Your task to perform on an android device: change keyboard looks Image 0: 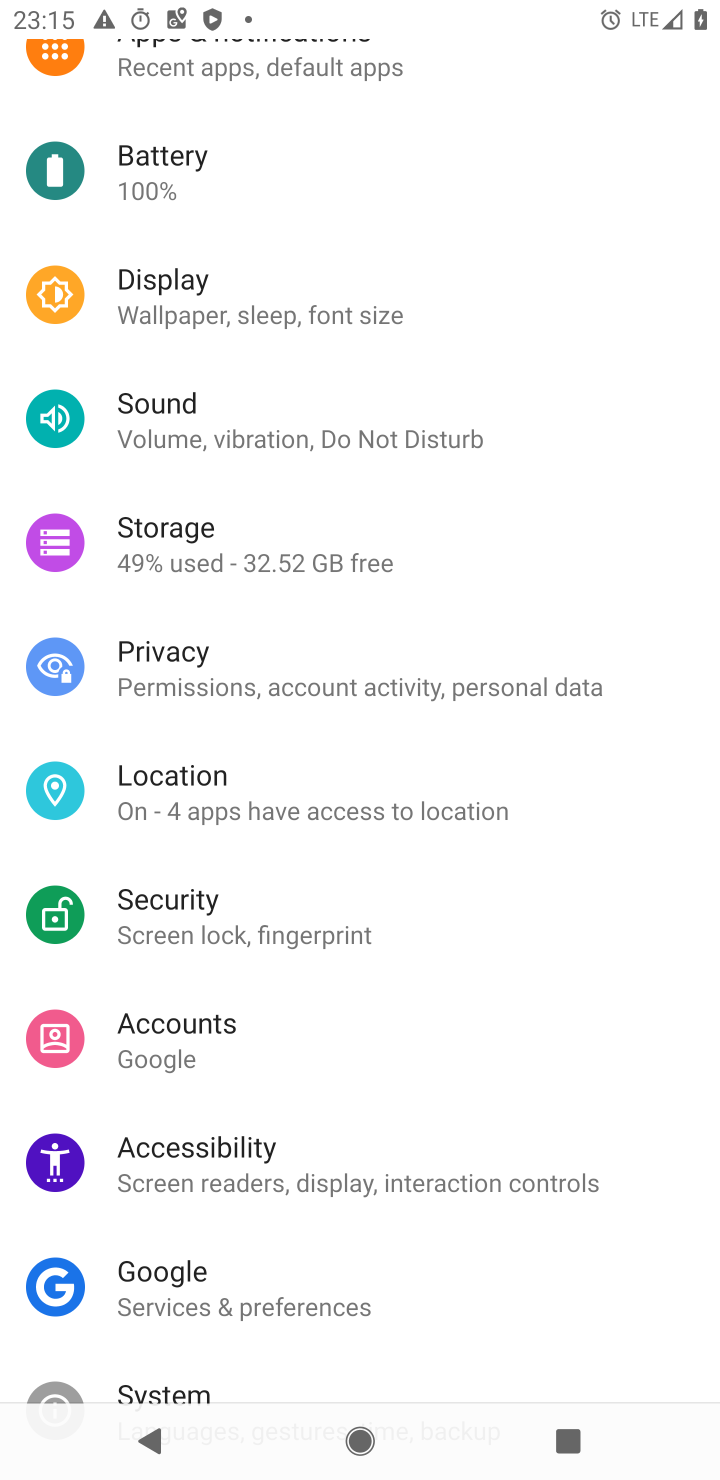
Step 0: click (192, 1374)
Your task to perform on an android device: change keyboard looks Image 1: 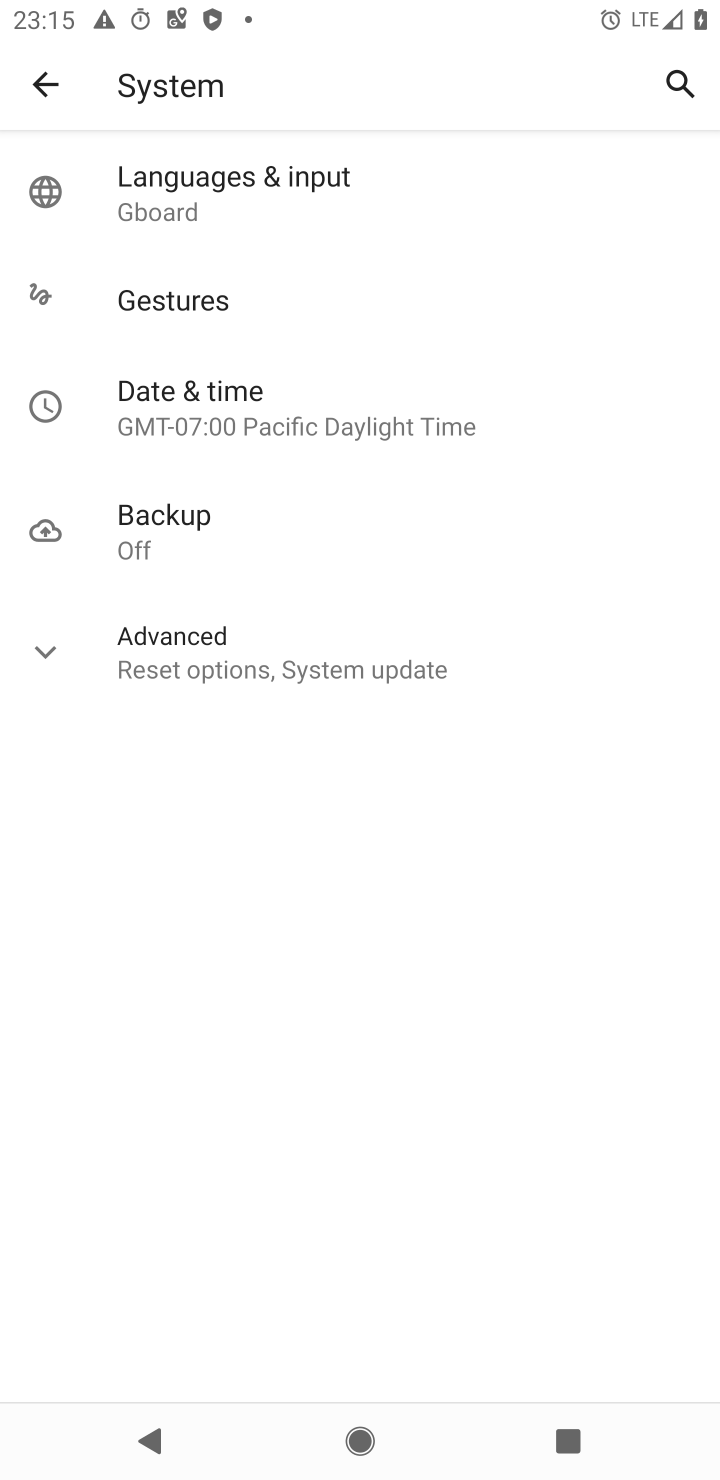
Step 1: click (344, 182)
Your task to perform on an android device: change keyboard looks Image 2: 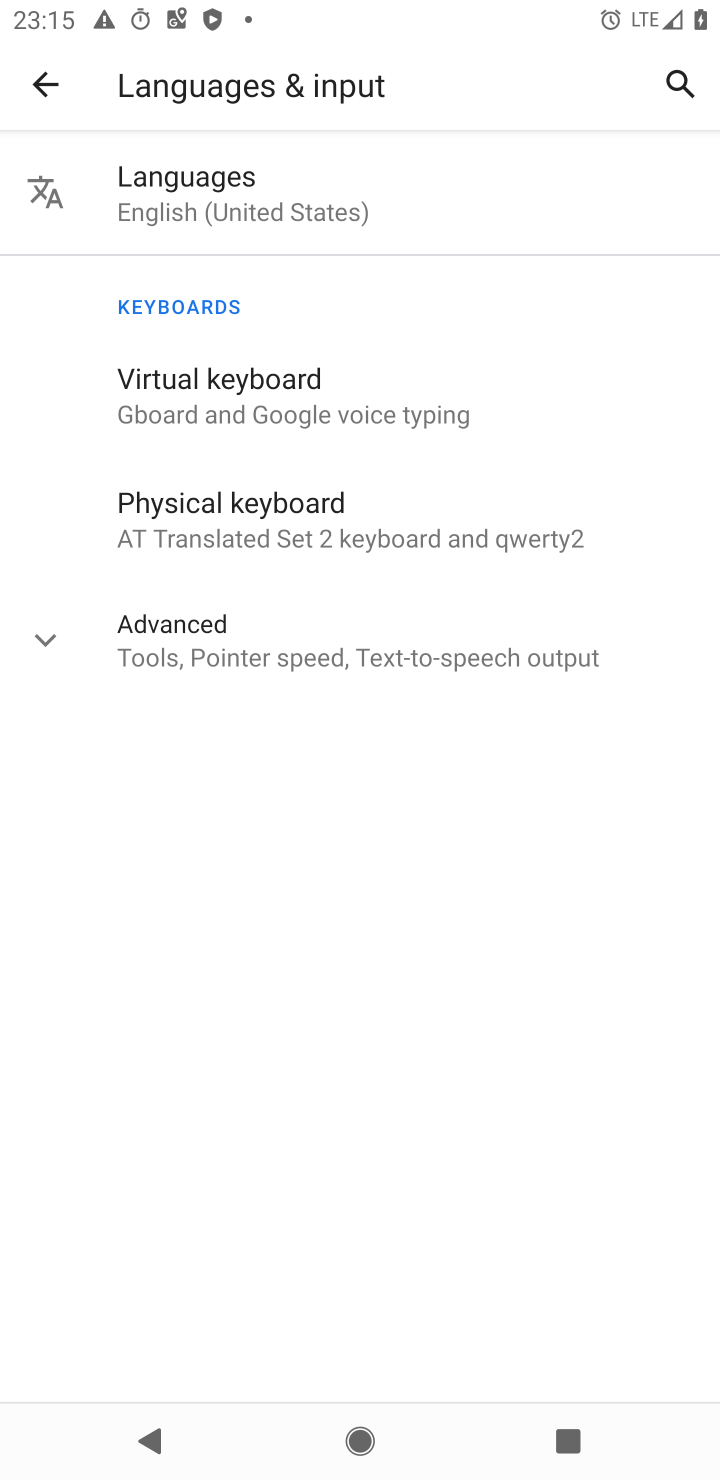
Step 2: click (339, 383)
Your task to perform on an android device: change keyboard looks Image 3: 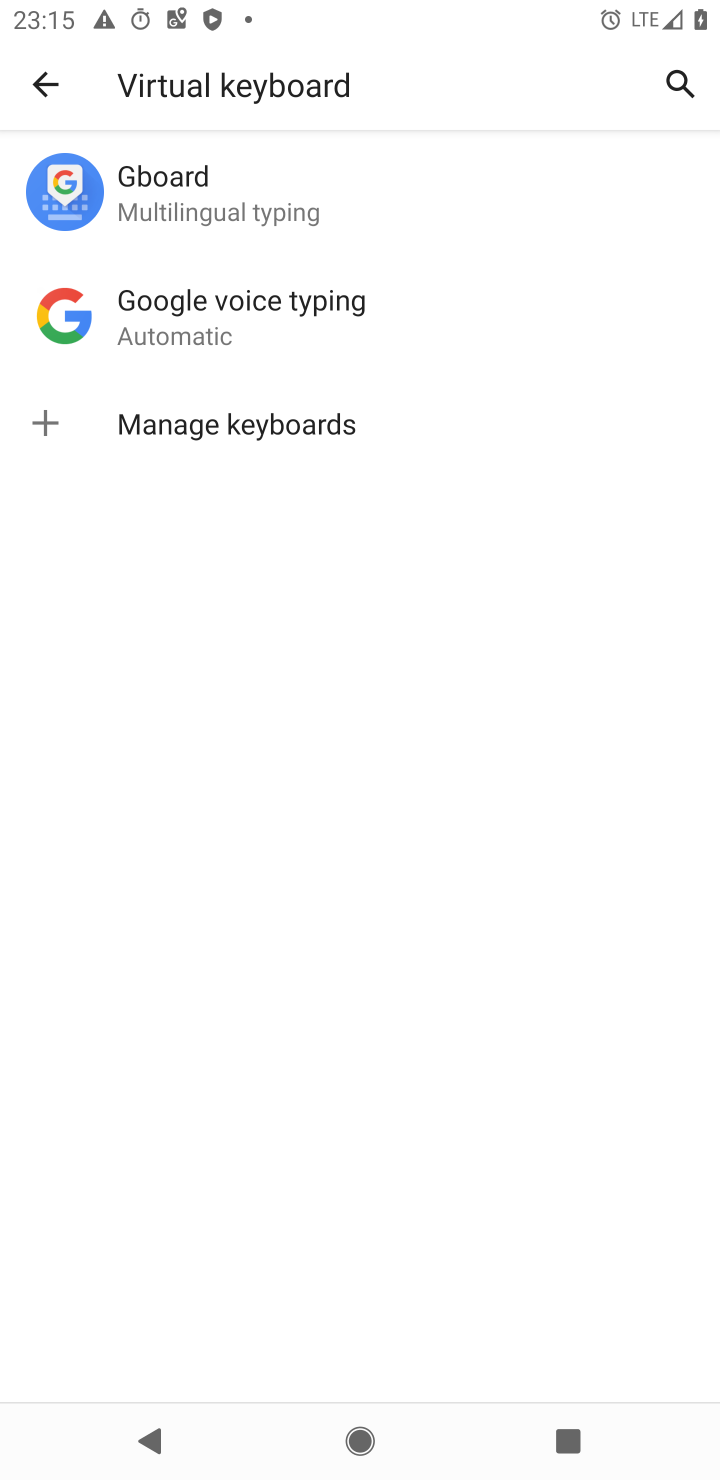
Step 3: click (178, 188)
Your task to perform on an android device: change keyboard looks Image 4: 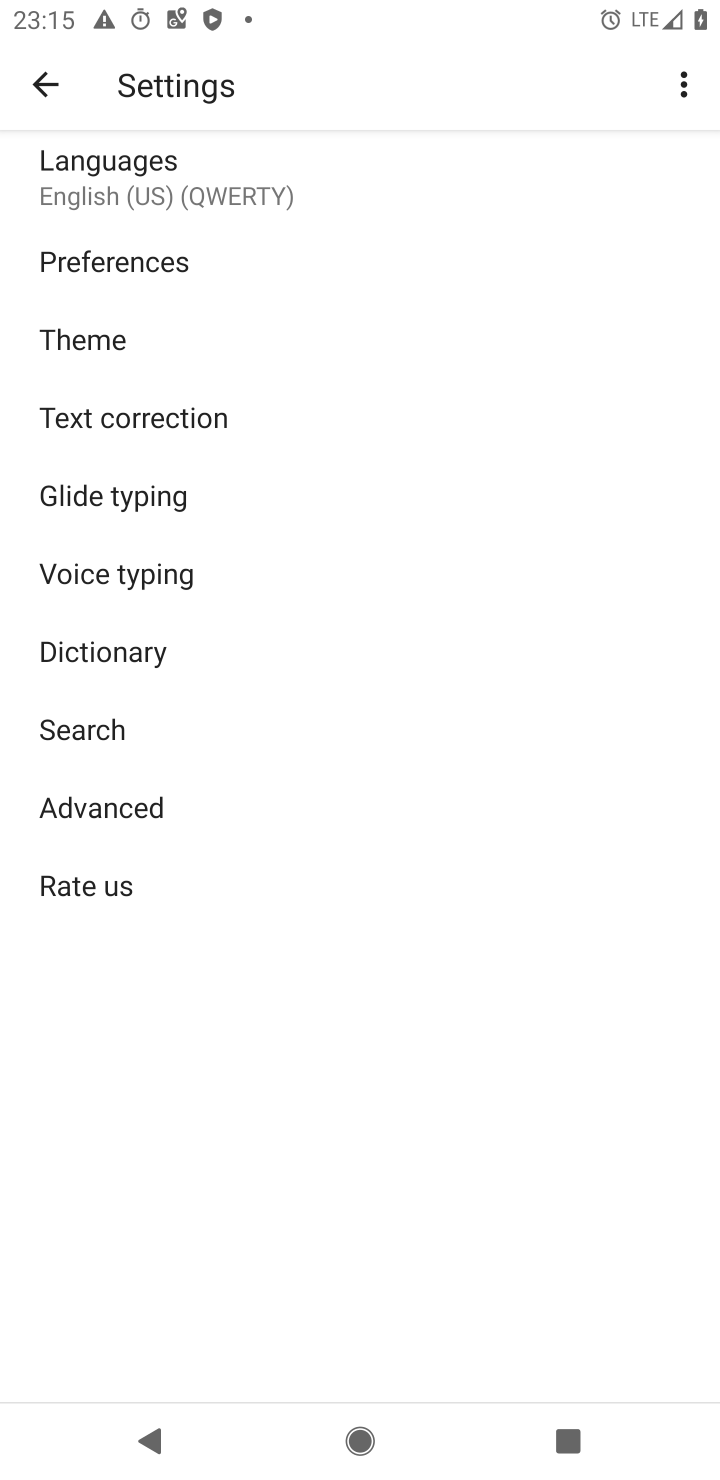
Step 4: click (132, 332)
Your task to perform on an android device: change keyboard looks Image 5: 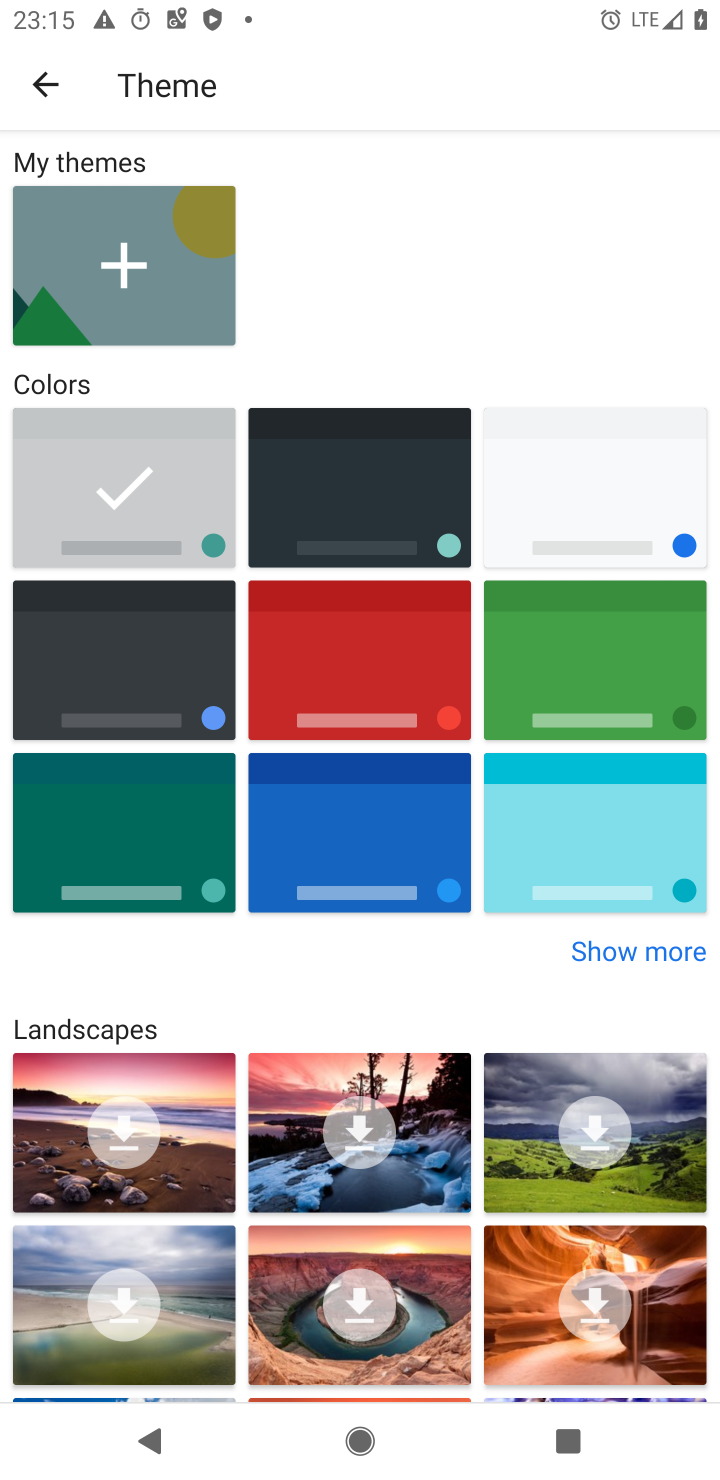
Step 5: click (409, 621)
Your task to perform on an android device: change keyboard looks Image 6: 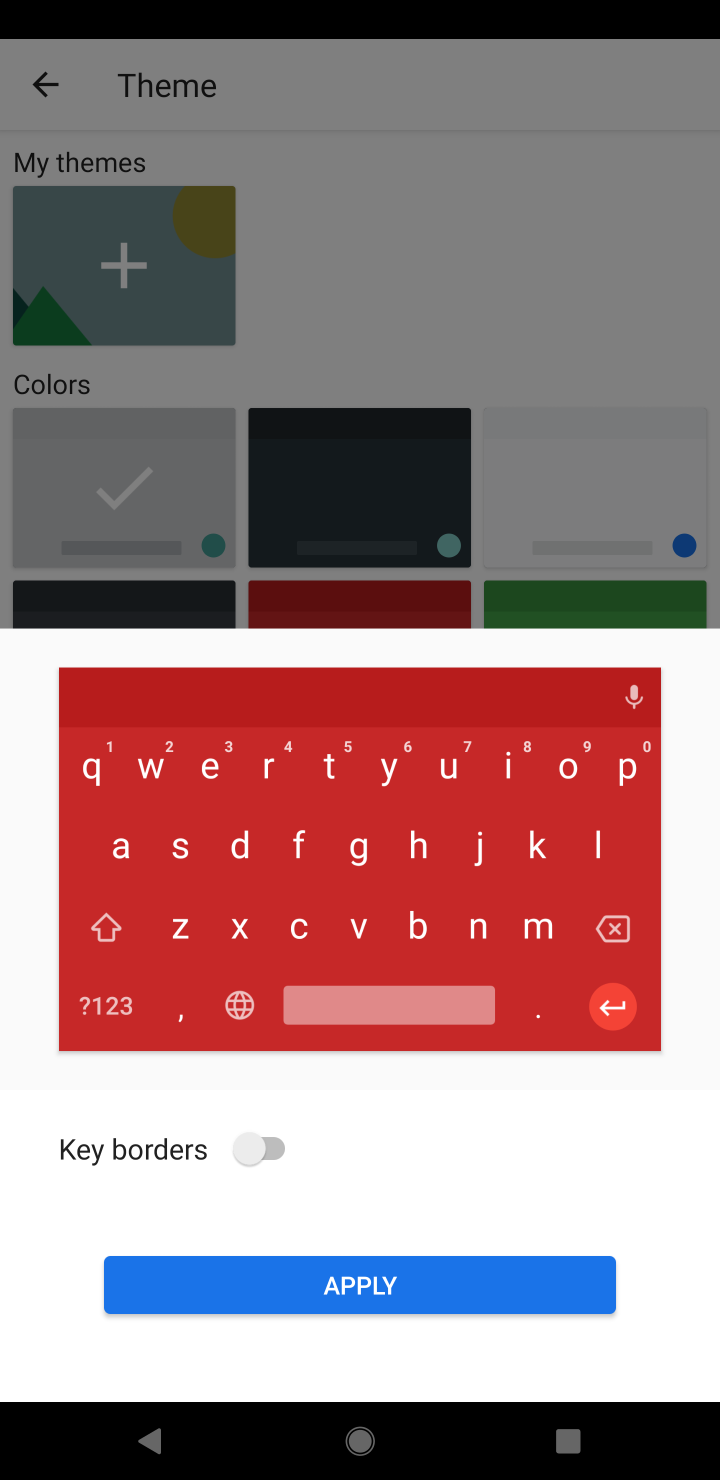
Step 6: click (423, 1275)
Your task to perform on an android device: change keyboard looks Image 7: 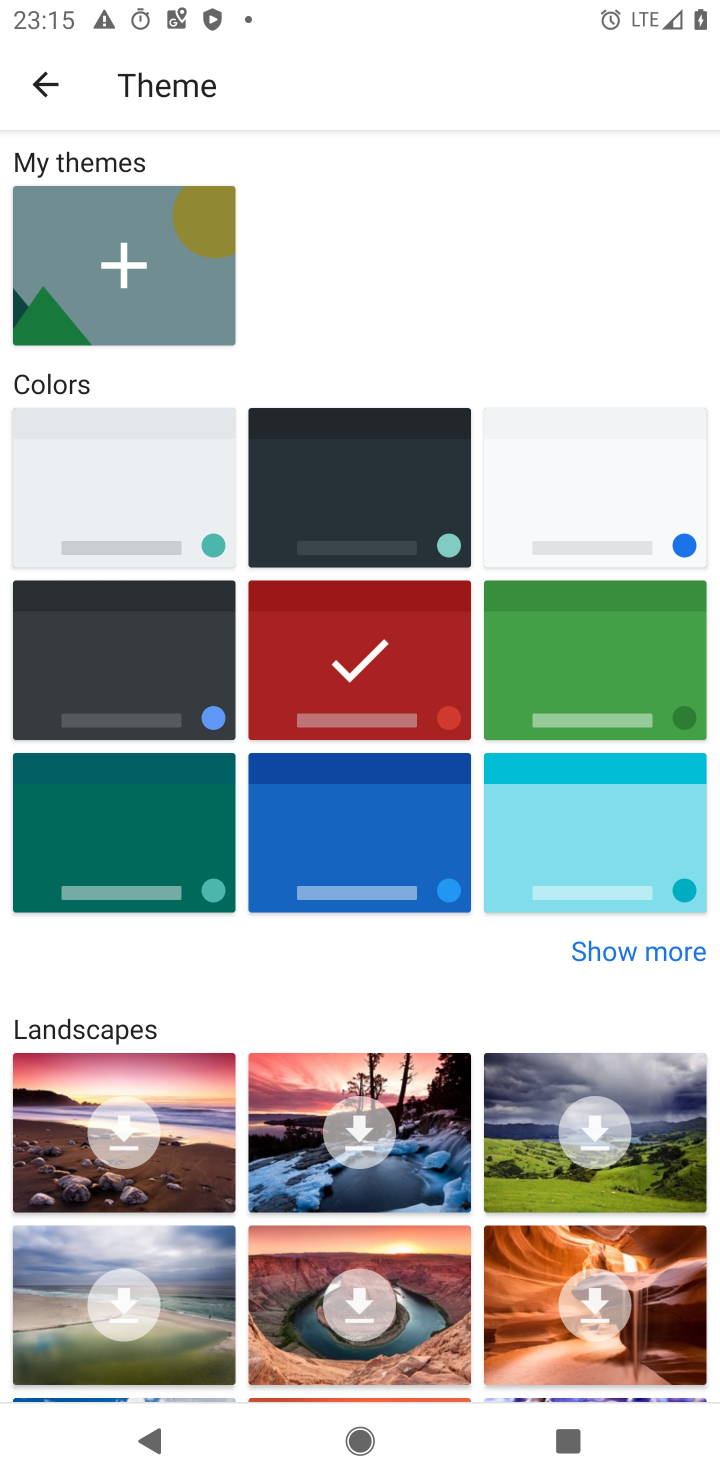
Step 7: task complete